Your task to perform on an android device: turn off improve location accuracy Image 0: 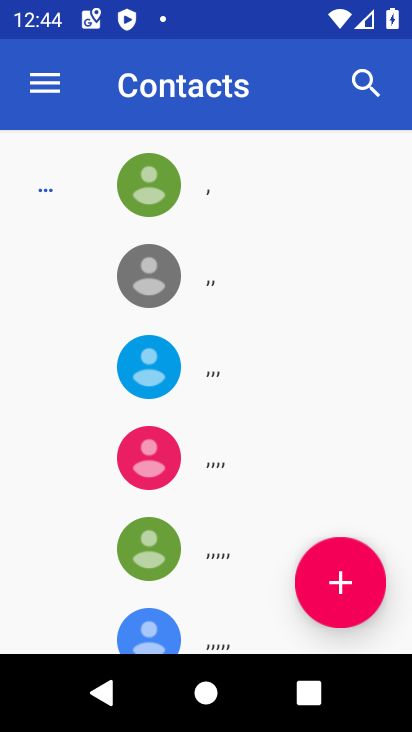
Step 0: press home button
Your task to perform on an android device: turn off improve location accuracy Image 1: 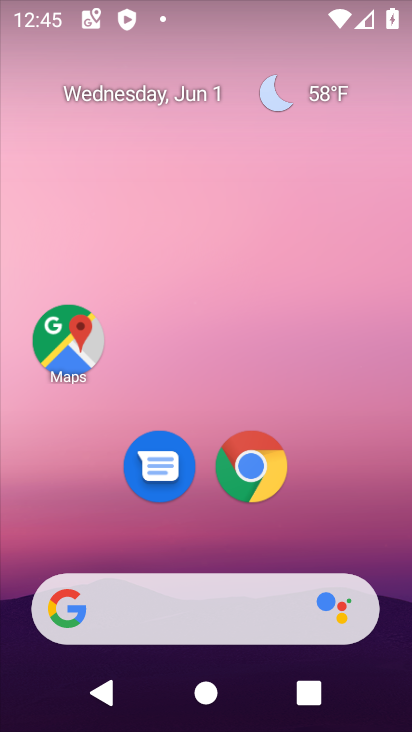
Step 1: drag from (368, 565) to (342, 291)
Your task to perform on an android device: turn off improve location accuracy Image 2: 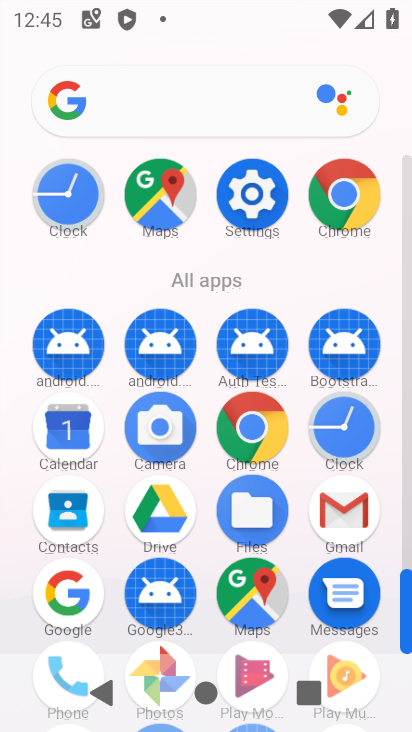
Step 2: click (261, 179)
Your task to perform on an android device: turn off improve location accuracy Image 3: 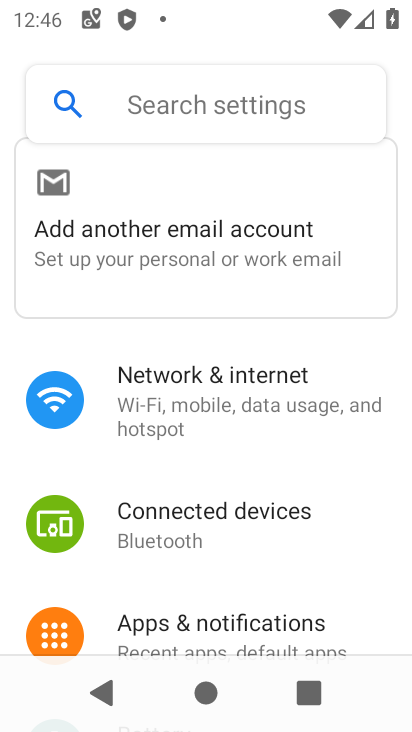
Step 3: drag from (324, 597) to (257, 32)
Your task to perform on an android device: turn off improve location accuracy Image 4: 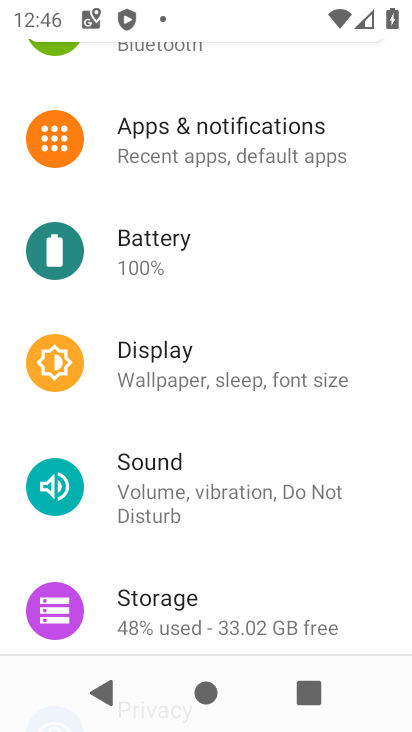
Step 4: drag from (270, 580) to (249, 259)
Your task to perform on an android device: turn off improve location accuracy Image 5: 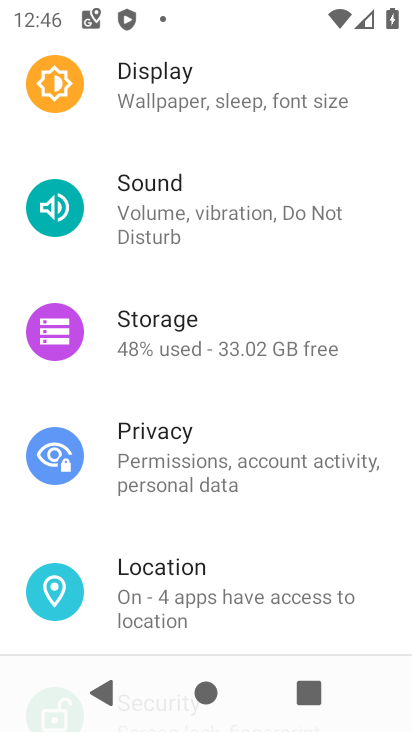
Step 5: click (253, 576)
Your task to perform on an android device: turn off improve location accuracy Image 6: 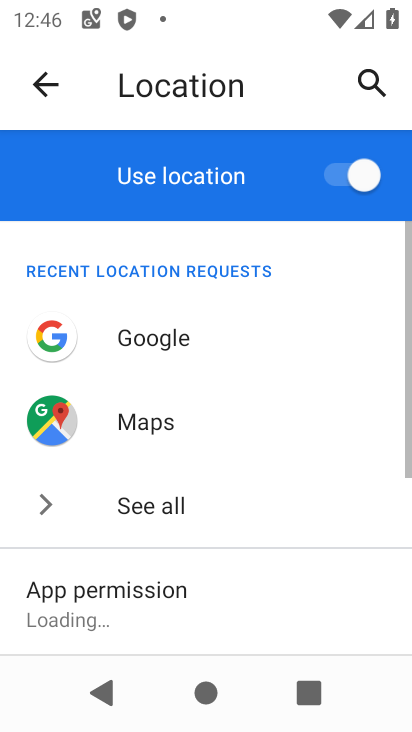
Step 6: drag from (253, 576) to (199, 227)
Your task to perform on an android device: turn off improve location accuracy Image 7: 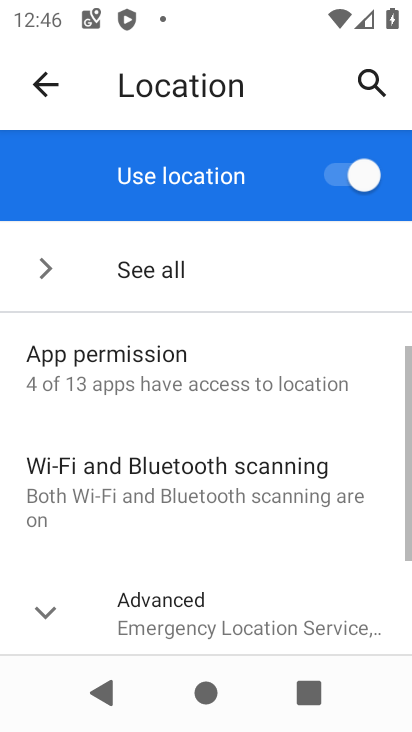
Step 7: click (248, 622)
Your task to perform on an android device: turn off improve location accuracy Image 8: 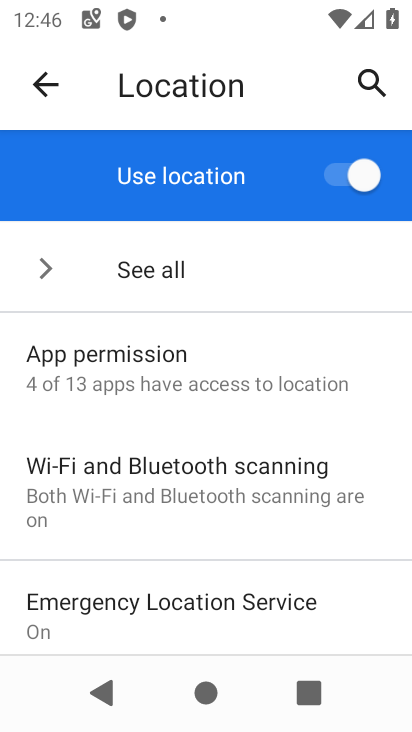
Step 8: drag from (248, 622) to (204, 320)
Your task to perform on an android device: turn off improve location accuracy Image 9: 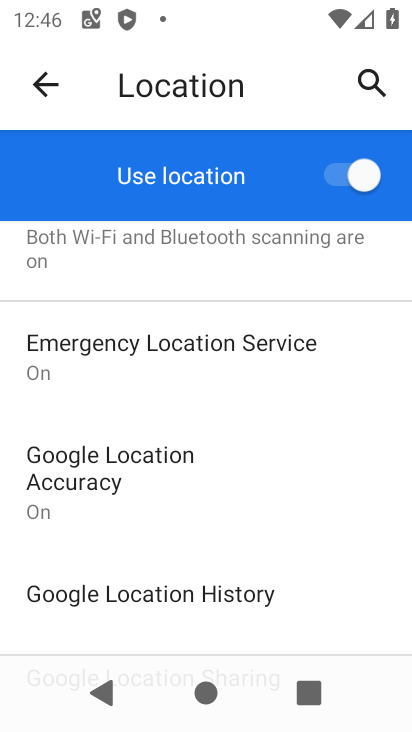
Step 9: click (216, 460)
Your task to perform on an android device: turn off improve location accuracy Image 10: 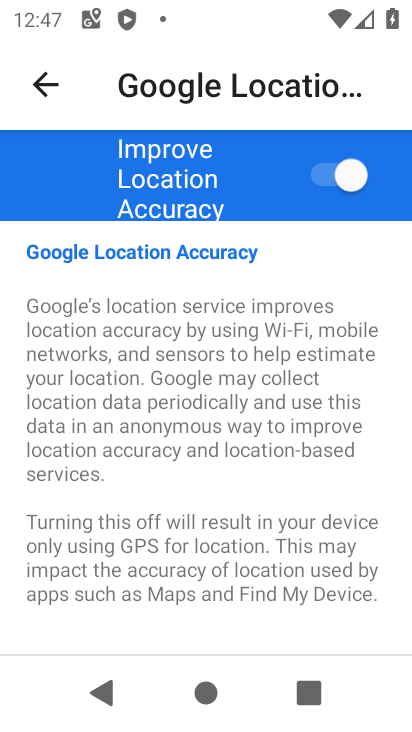
Step 10: click (329, 183)
Your task to perform on an android device: turn off improve location accuracy Image 11: 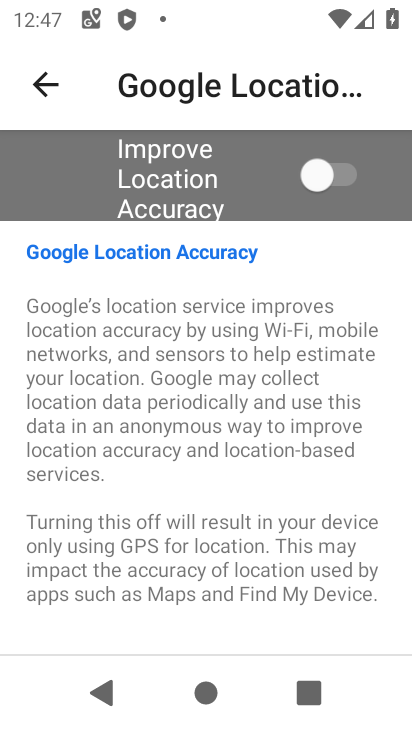
Step 11: task complete